Your task to perform on an android device: change notification settings in the gmail app Image 0: 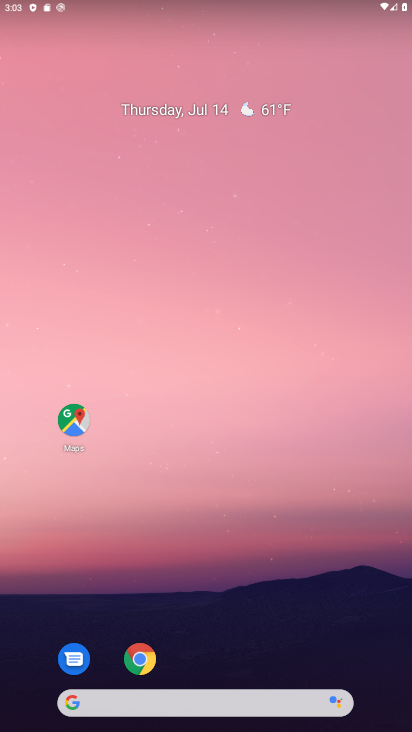
Step 0: drag from (200, 702) to (262, 183)
Your task to perform on an android device: change notification settings in the gmail app Image 1: 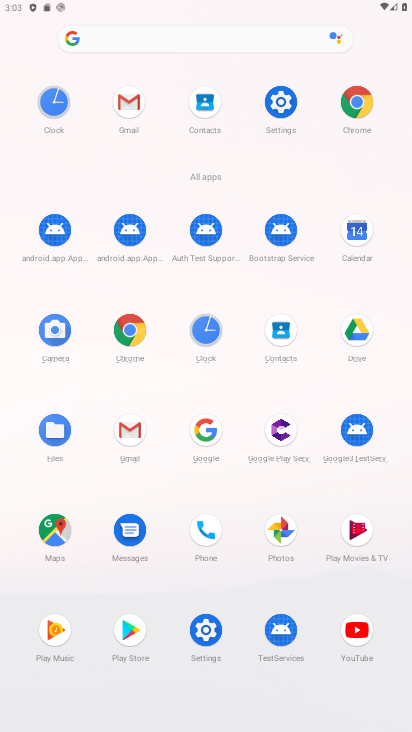
Step 1: click (132, 102)
Your task to perform on an android device: change notification settings in the gmail app Image 2: 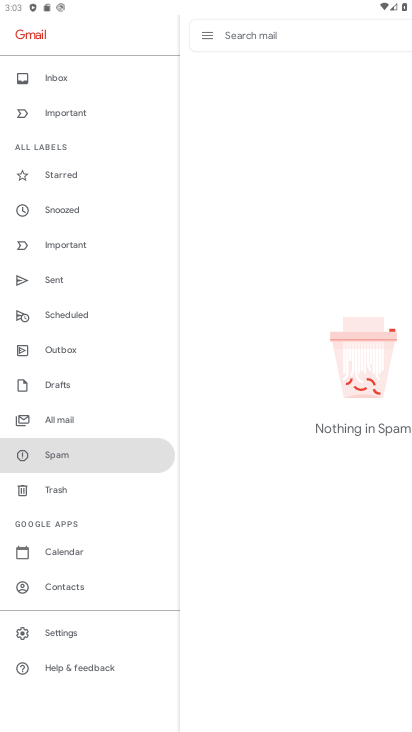
Step 2: click (63, 629)
Your task to perform on an android device: change notification settings in the gmail app Image 3: 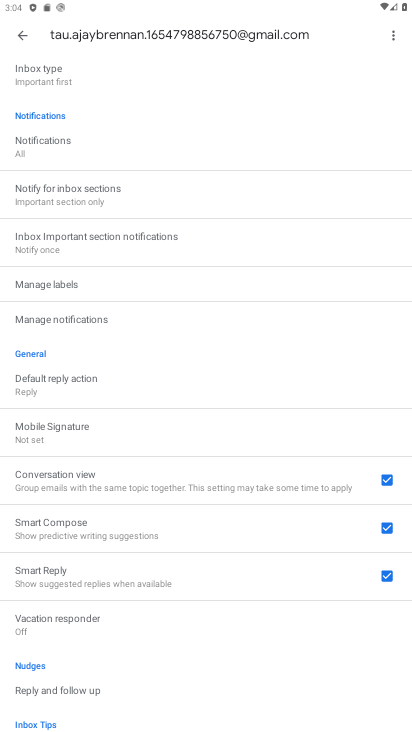
Step 3: click (72, 319)
Your task to perform on an android device: change notification settings in the gmail app Image 4: 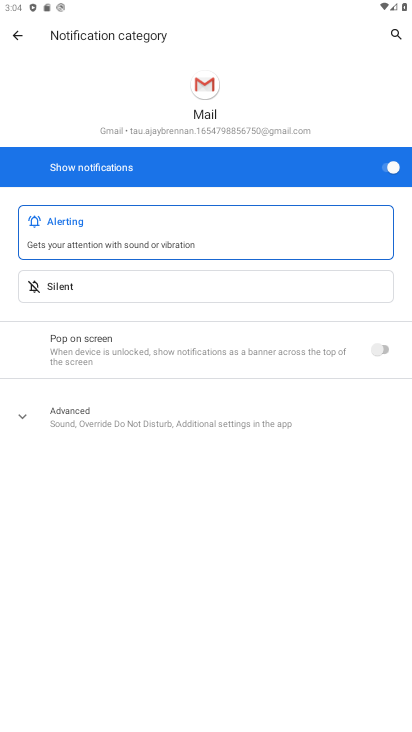
Step 4: click (386, 169)
Your task to perform on an android device: change notification settings in the gmail app Image 5: 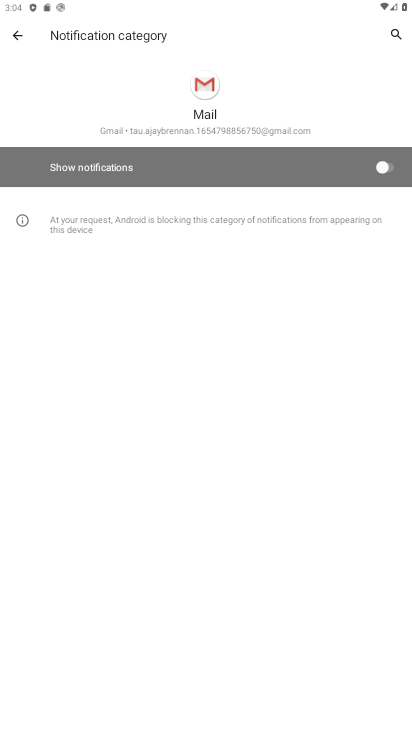
Step 5: task complete